Your task to perform on an android device: Show the shopping cart on newegg. Search for "asus rog" on newegg, select the first entry, add it to the cart, then select checkout. Image 0: 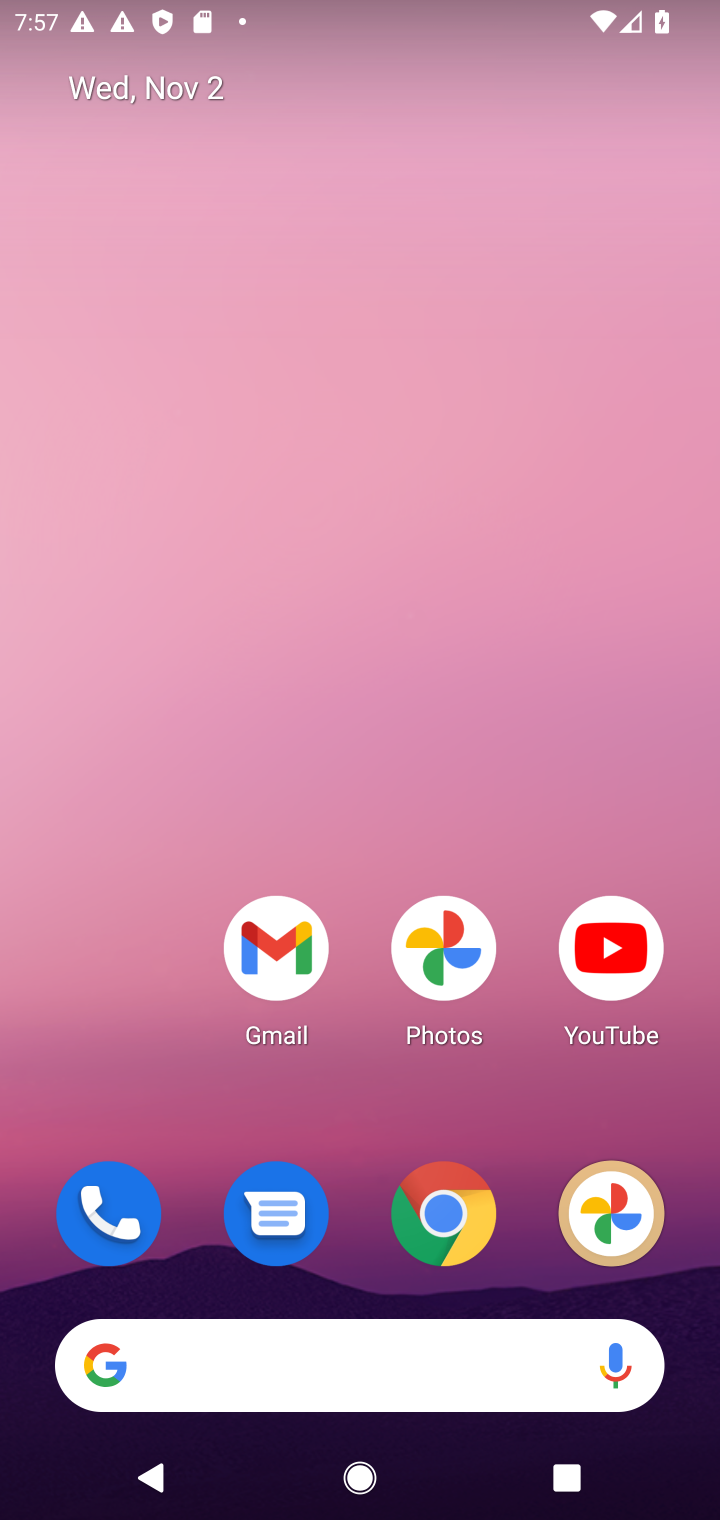
Step 0: click (454, 1232)
Your task to perform on an android device: Show the shopping cart on newegg. Search for "asus rog" on newegg, select the first entry, add it to the cart, then select checkout. Image 1: 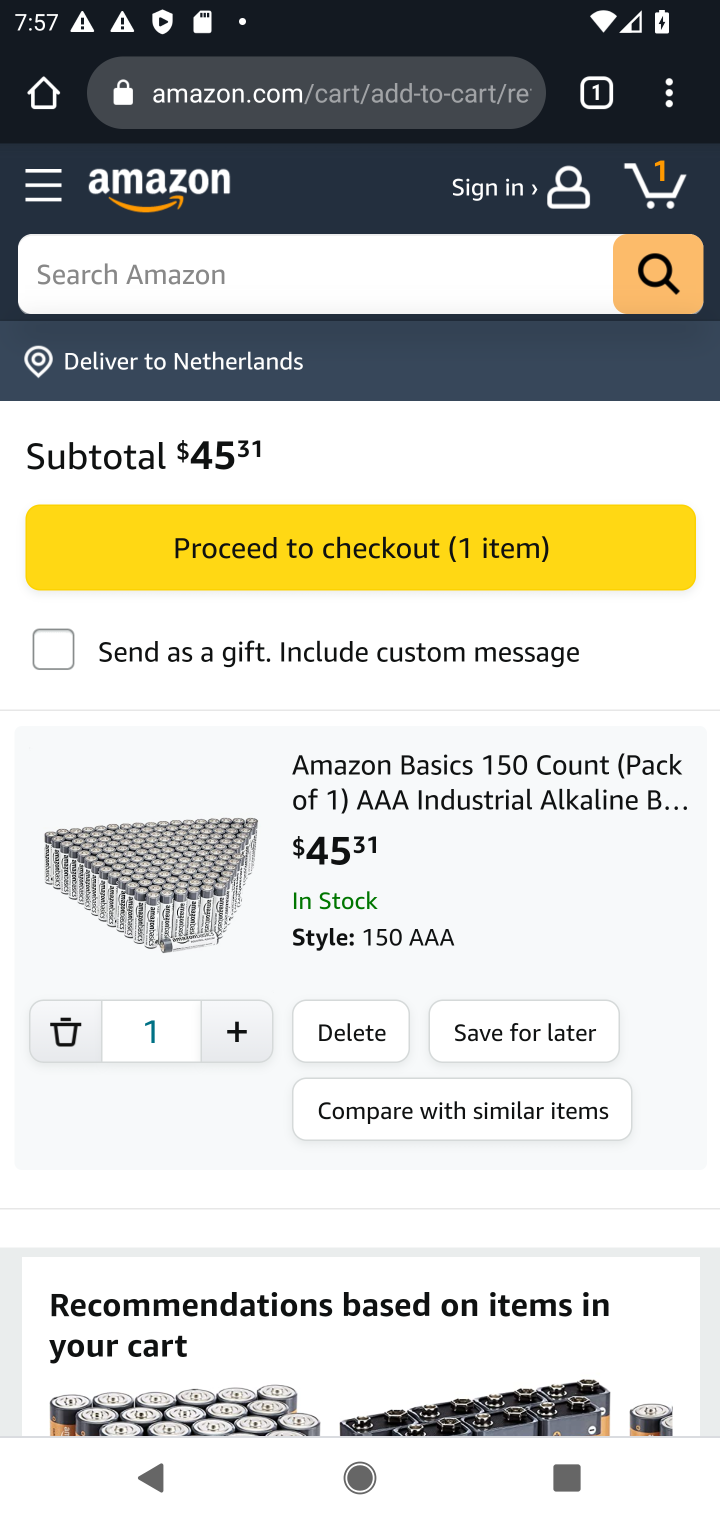
Step 1: click (281, 79)
Your task to perform on an android device: Show the shopping cart on newegg. Search for "asus rog" on newegg, select the first entry, add it to the cart, then select checkout. Image 2: 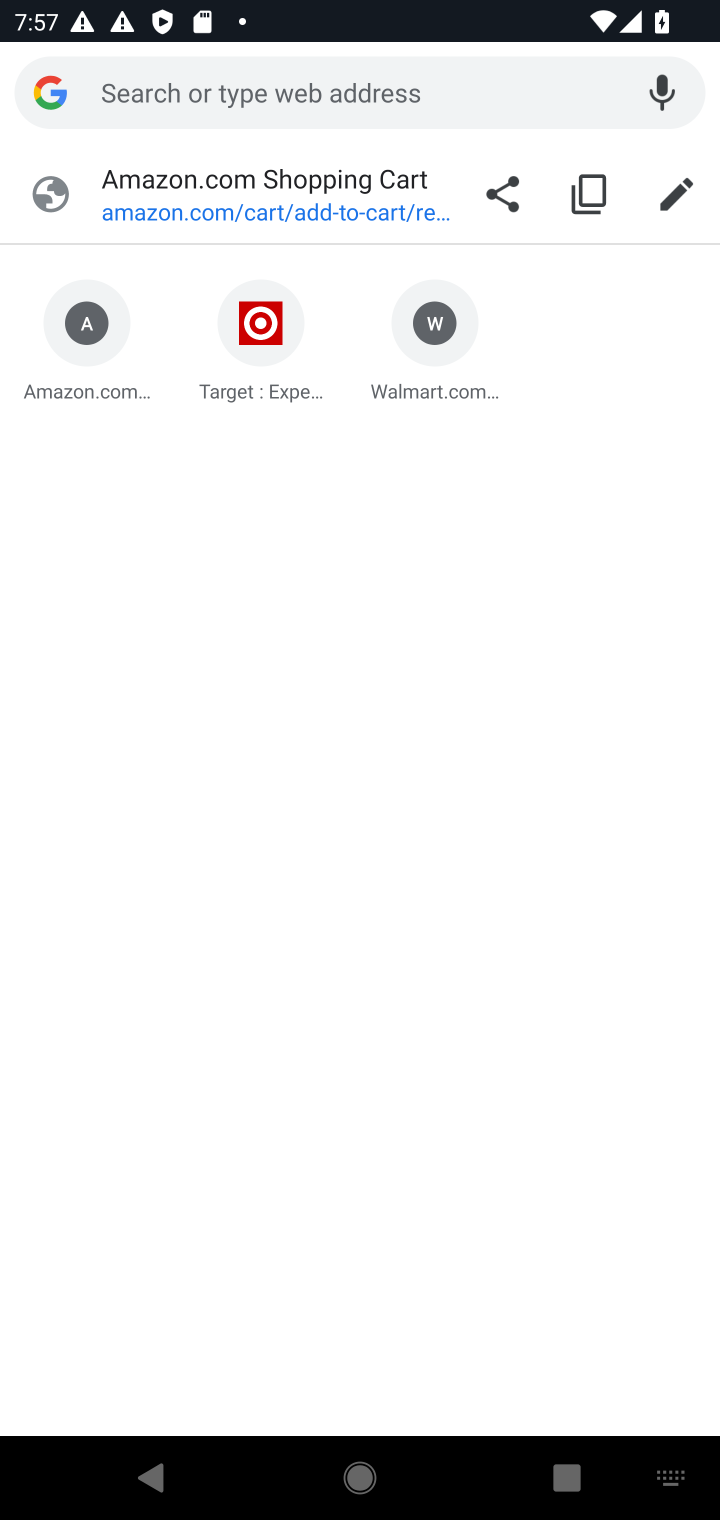
Step 2: type "newegg.com"
Your task to perform on an android device: Show the shopping cart on newegg. Search for "asus rog" on newegg, select the first entry, add it to the cart, then select checkout. Image 3: 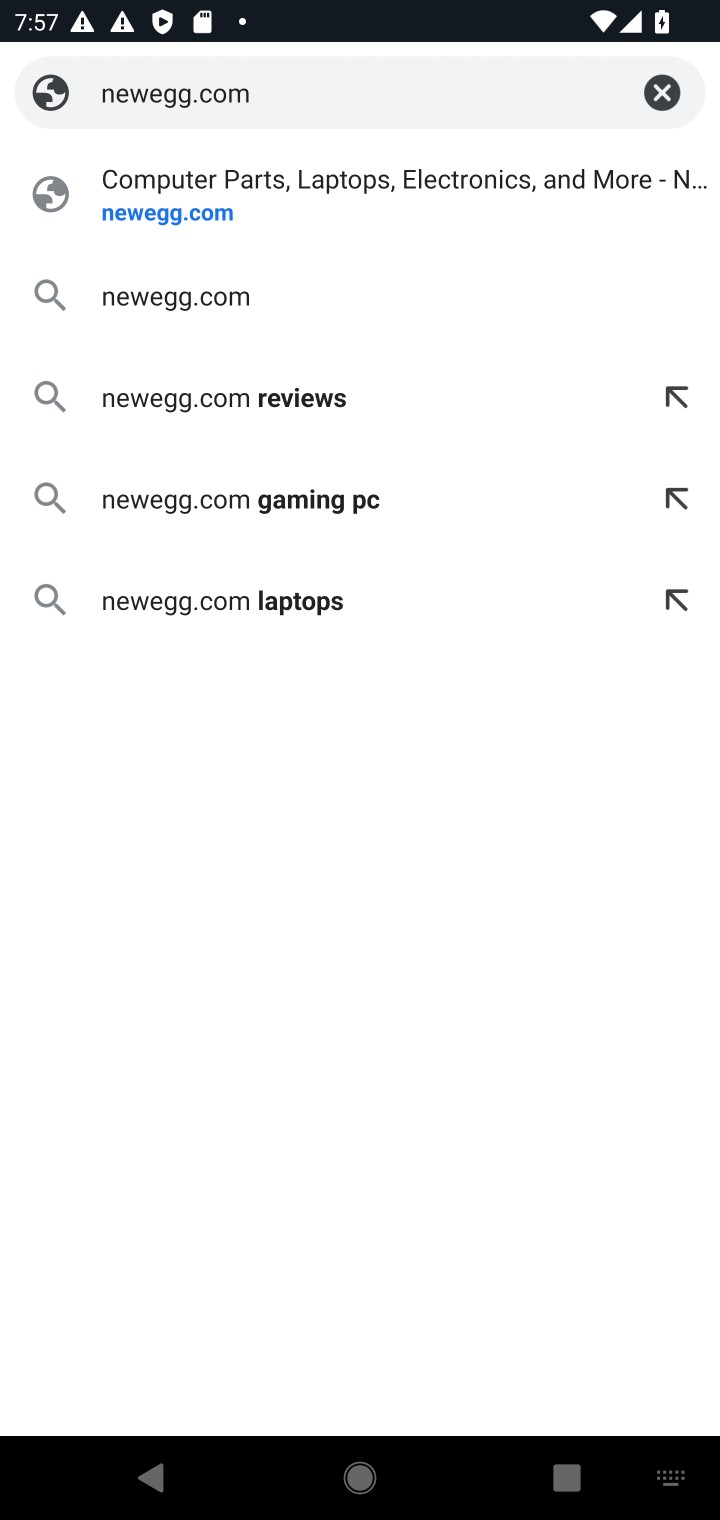
Step 3: click (149, 203)
Your task to perform on an android device: Show the shopping cart on newegg. Search for "asus rog" on newegg, select the first entry, add it to the cart, then select checkout. Image 4: 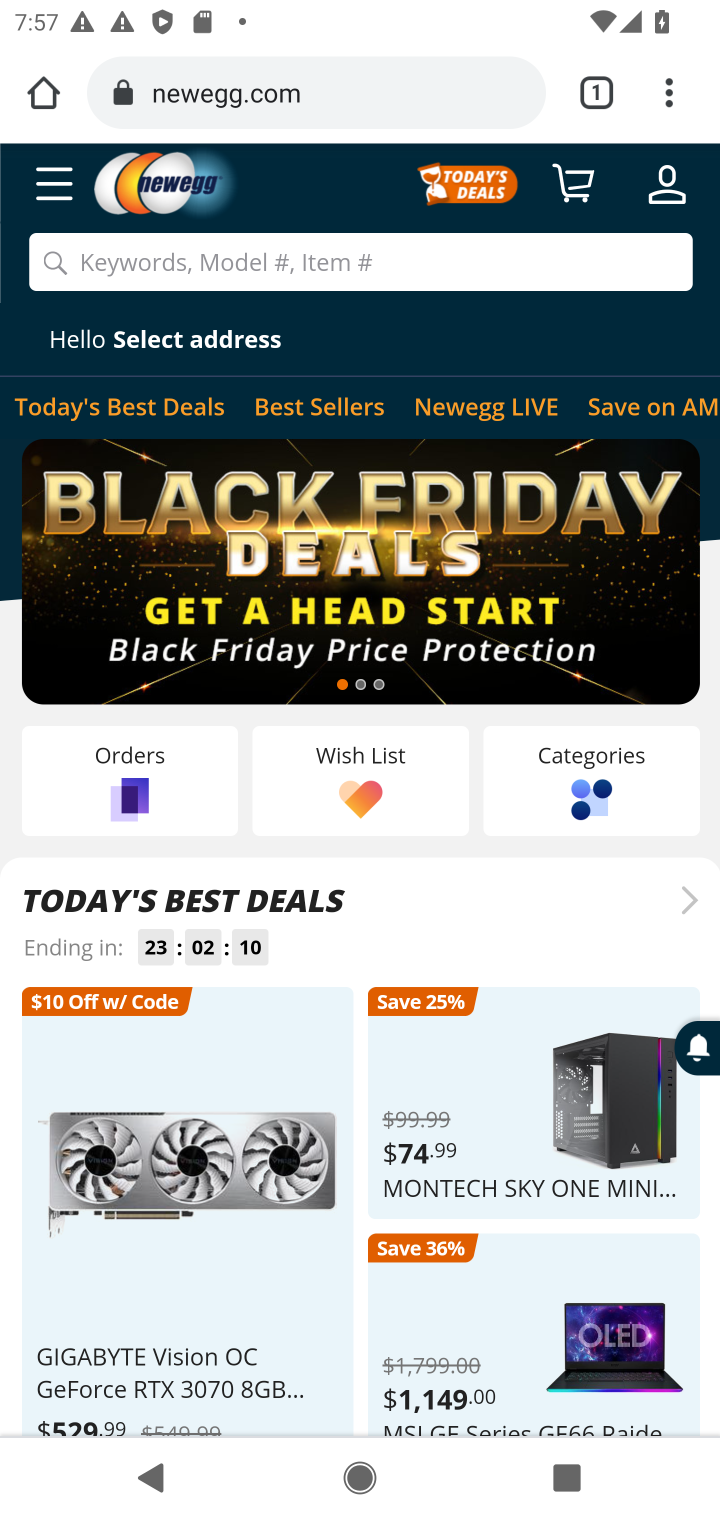
Step 4: click (586, 186)
Your task to perform on an android device: Show the shopping cart on newegg. Search for "asus rog" on newegg, select the first entry, add it to the cart, then select checkout. Image 5: 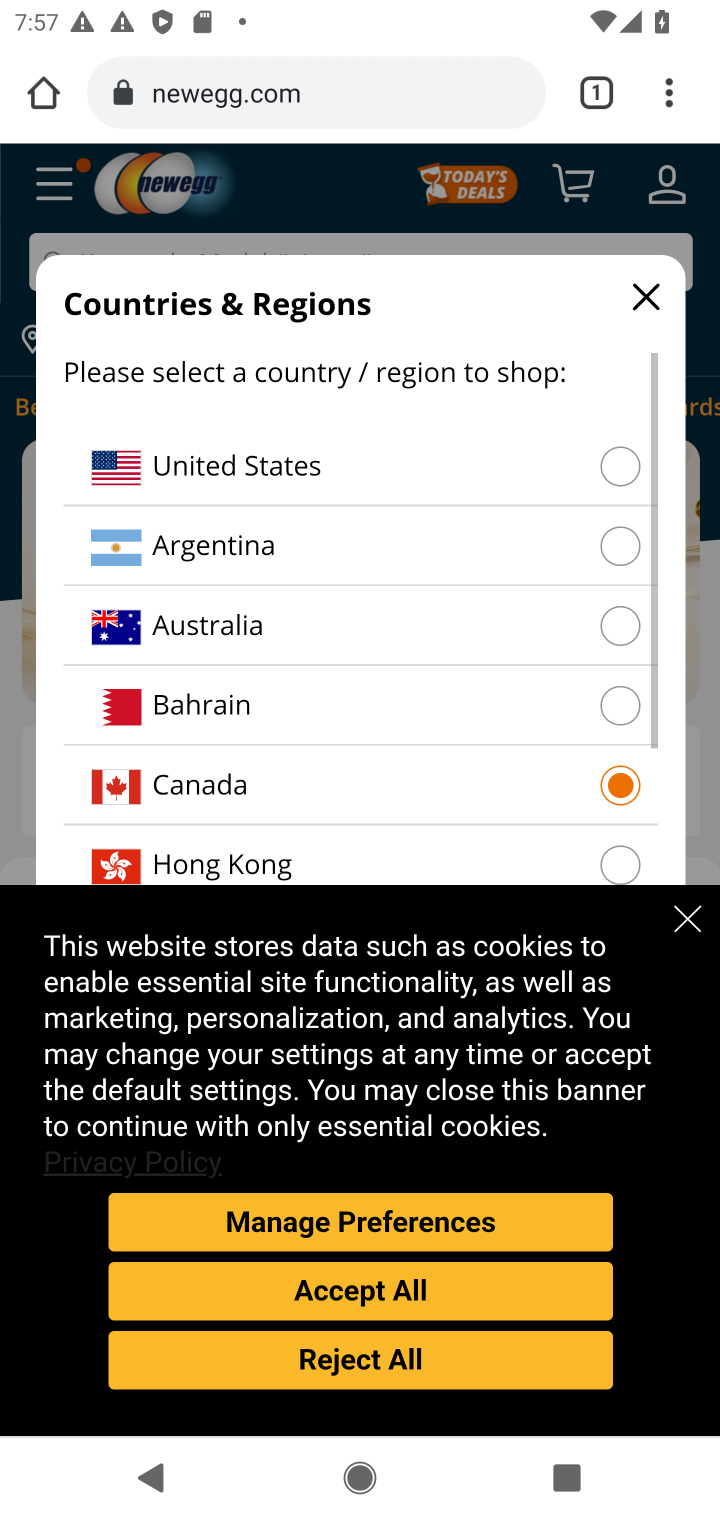
Step 5: click (649, 290)
Your task to perform on an android device: Show the shopping cart on newegg. Search for "asus rog" on newegg, select the first entry, add it to the cart, then select checkout. Image 6: 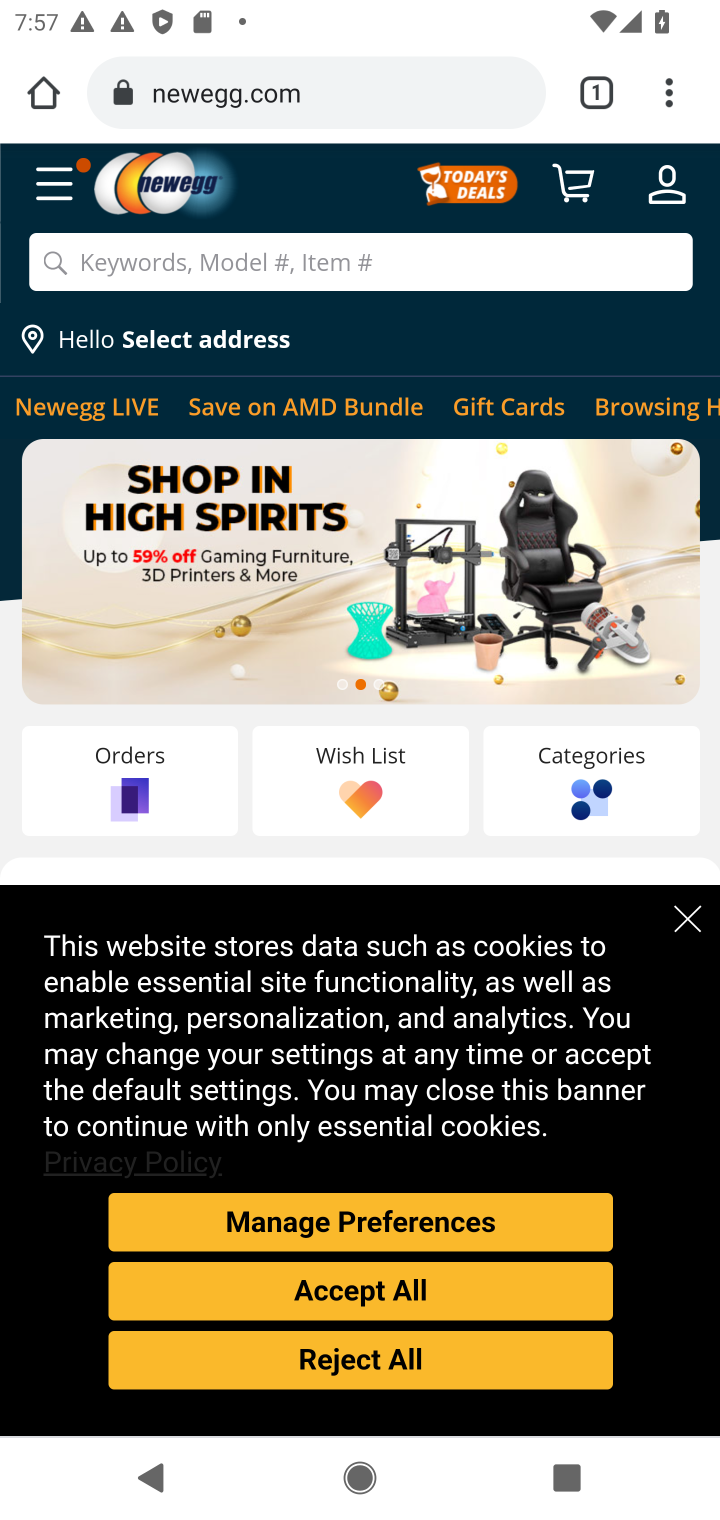
Step 6: click (699, 927)
Your task to perform on an android device: Show the shopping cart on newegg. Search for "asus rog" on newegg, select the first entry, add it to the cart, then select checkout. Image 7: 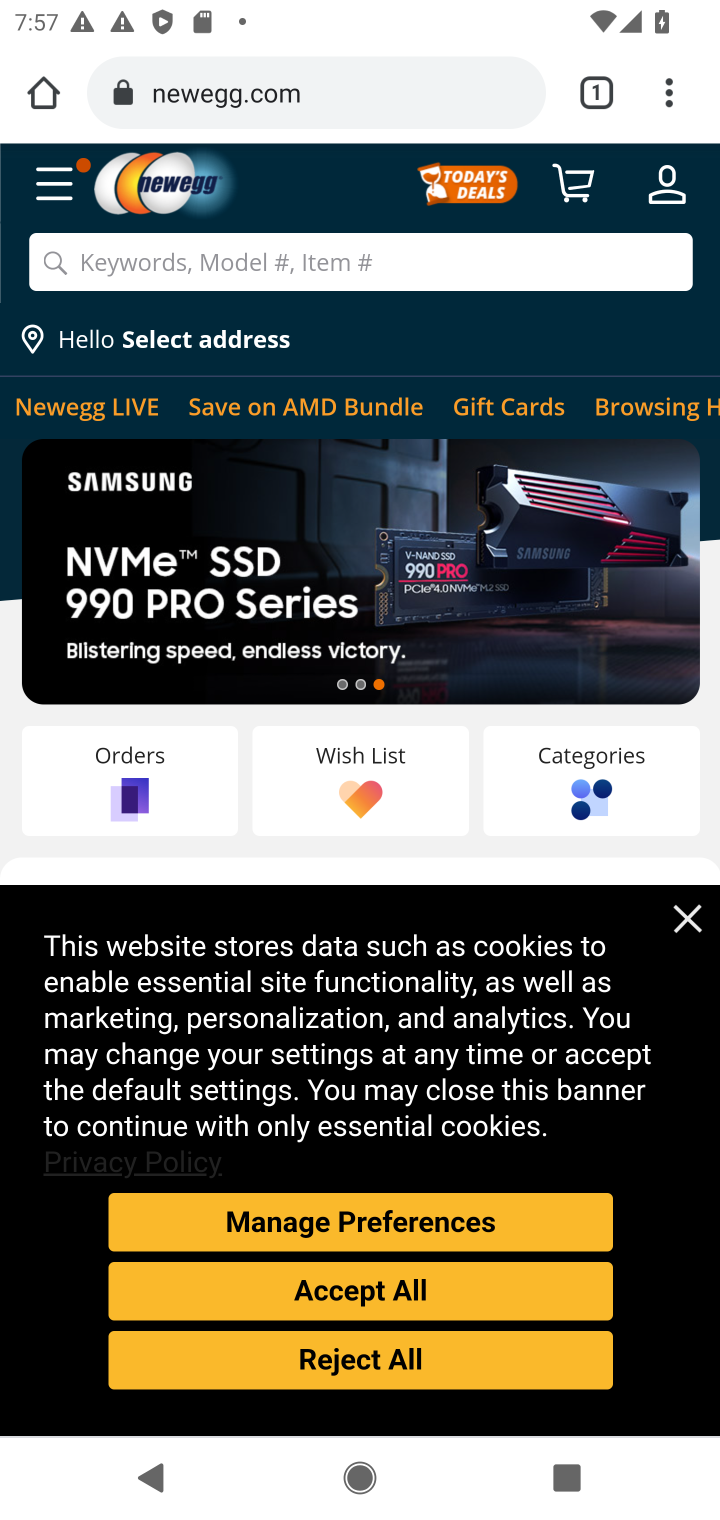
Step 7: click (582, 195)
Your task to perform on an android device: Show the shopping cart on newegg. Search for "asus rog" on newegg, select the first entry, add it to the cart, then select checkout. Image 8: 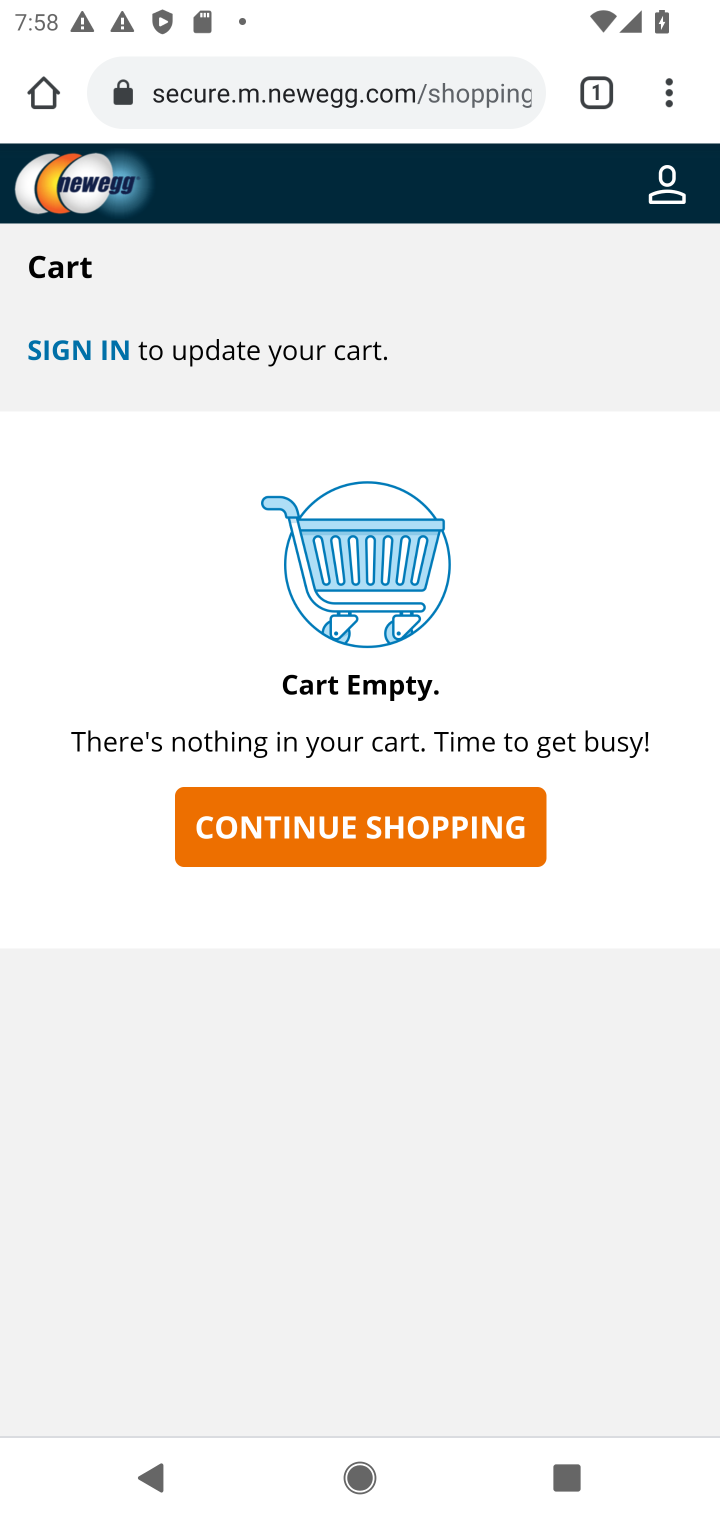
Step 8: press back button
Your task to perform on an android device: Show the shopping cart on newegg. Search for "asus rog" on newegg, select the first entry, add it to the cart, then select checkout. Image 9: 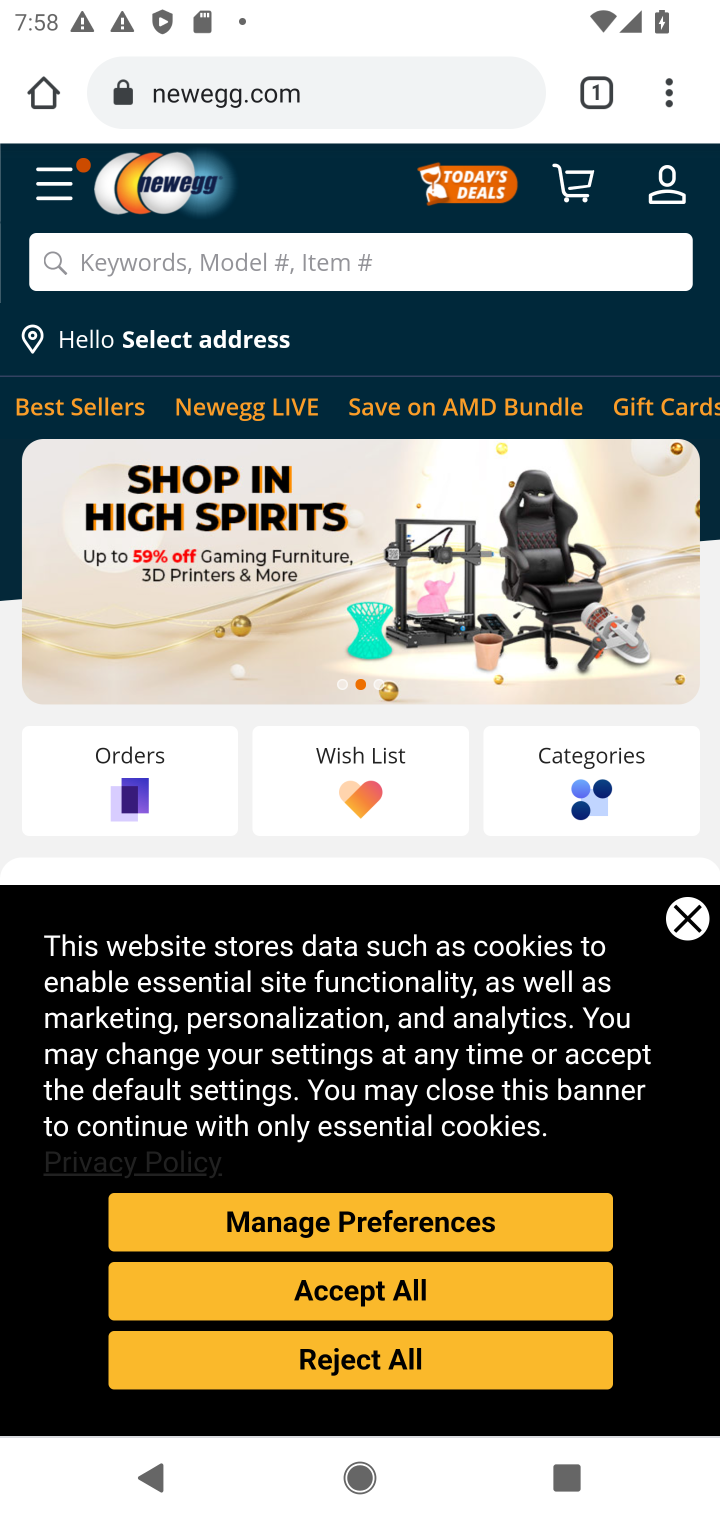
Step 9: click (227, 259)
Your task to perform on an android device: Show the shopping cart on newegg. Search for "asus rog" on newegg, select the first entry, add it to the cart, then select checkout. Image 10: 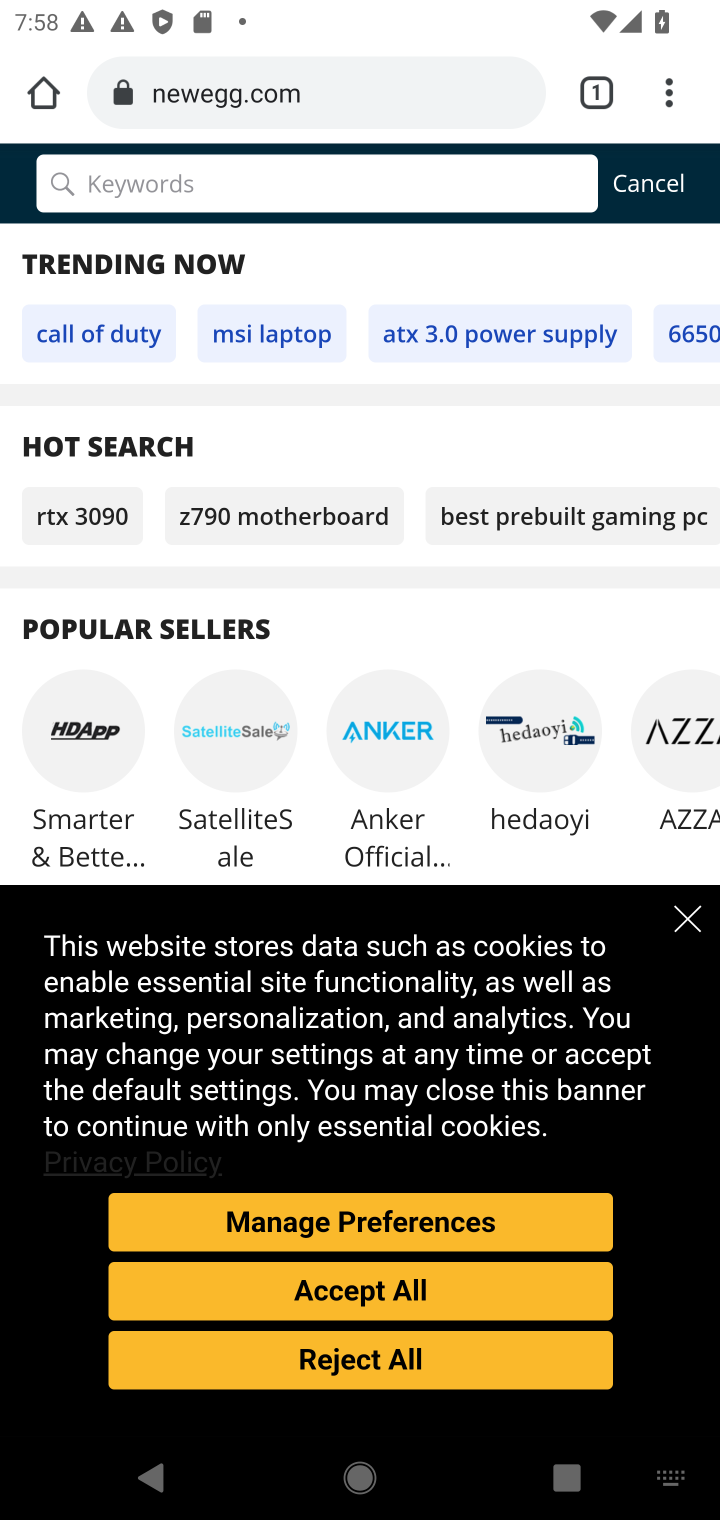
Step 10: type "asus rog"
Your task to perform on an android device: Show the shopping cart on newegg. Search for "asus rog" on newegg, select the first entry, add it to the cart, then select checkout. Image 11: 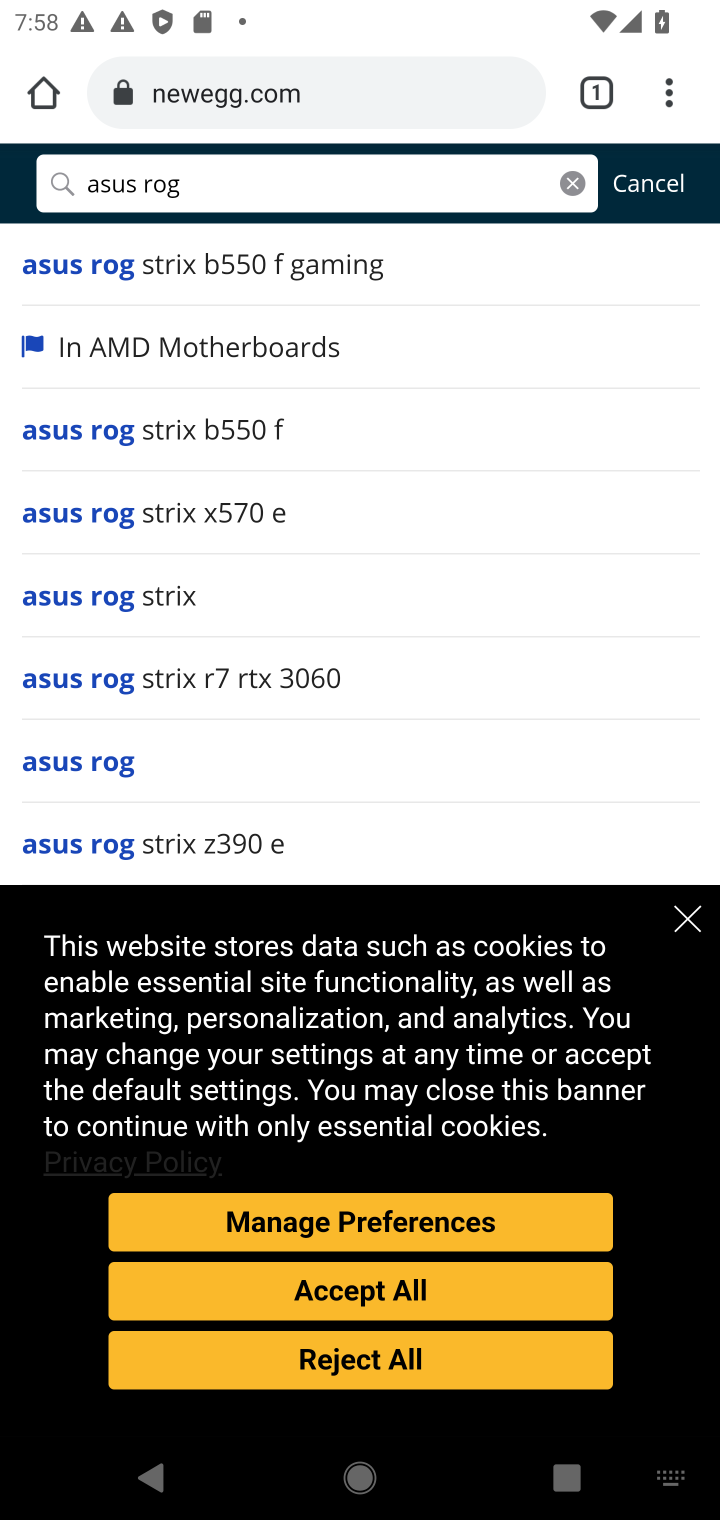
Step 11: click (74, 263)
Your task to perform on an android device: Show the shopping cart on newegg. Search for "asus rog" on newegg, select the first entry, add it to the cart, then select checkout. Image 12: 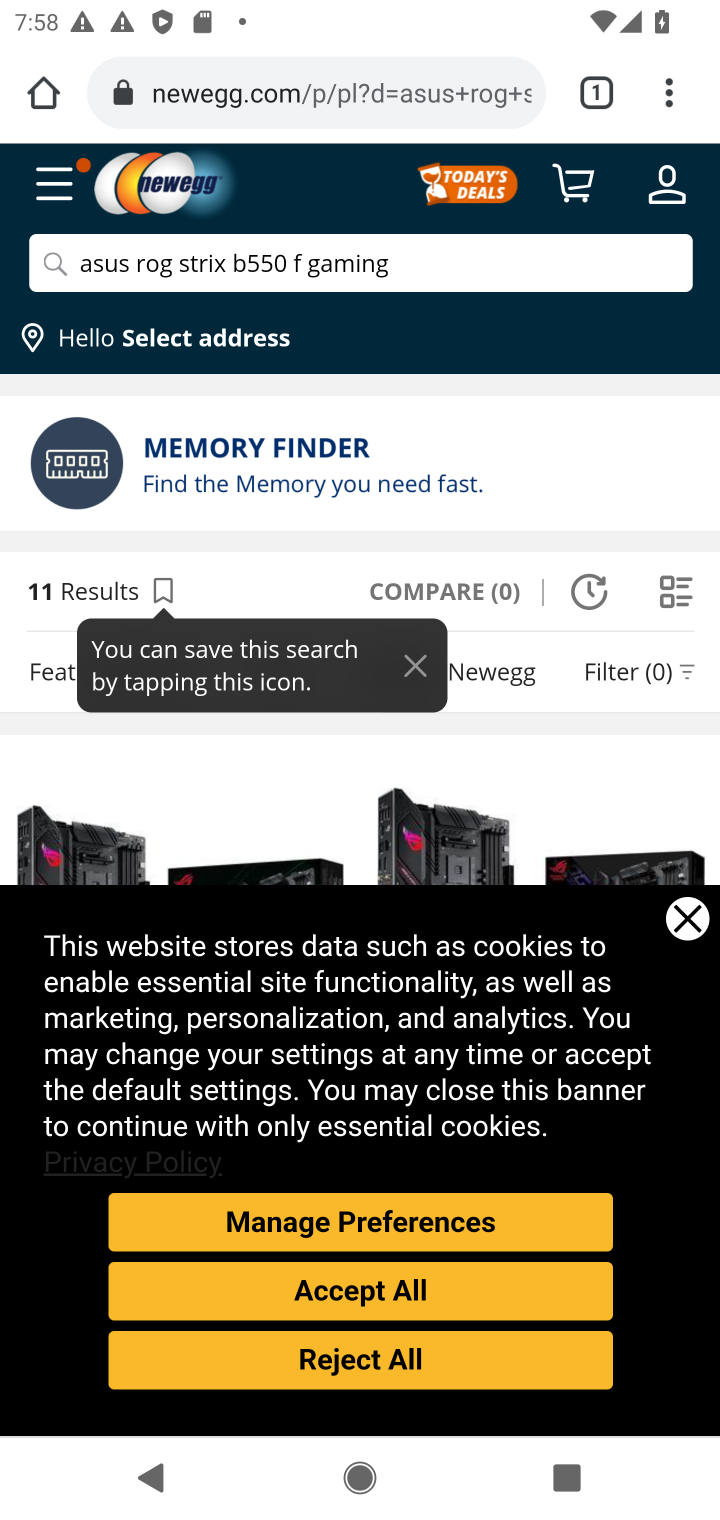
Step 12: click (693, 918)
Your task to perform on an android device: Show the shopping cart on newegg. Search for "asus rog" on newegg, select the first entry, add it to the cart, then select checkout. Image 13: 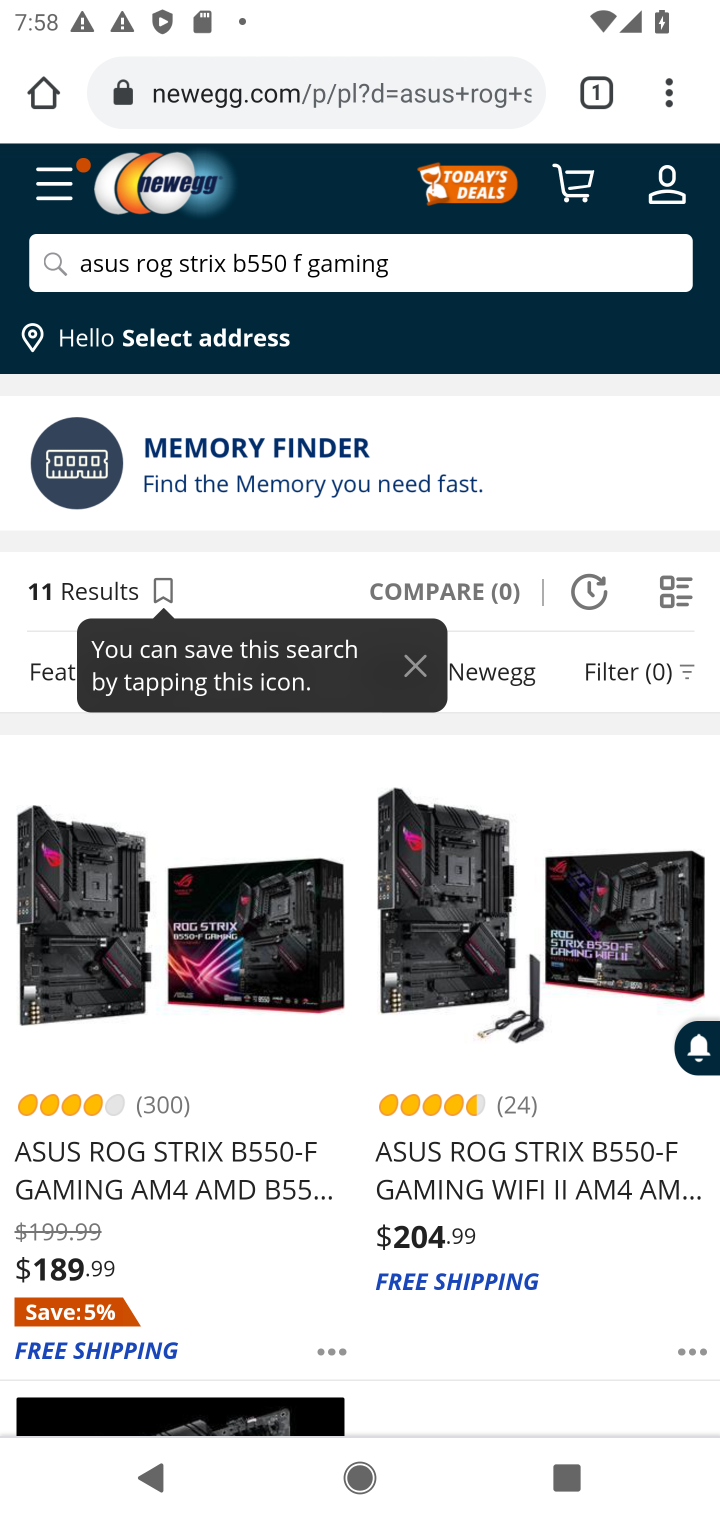
Step 13: click (166, 990)
Your task to perform on an android device: Show the shopping cart on newegg. Search for "asus rog" on newegg, select the first entry, add it to the cart, then select checkout. Image 14: 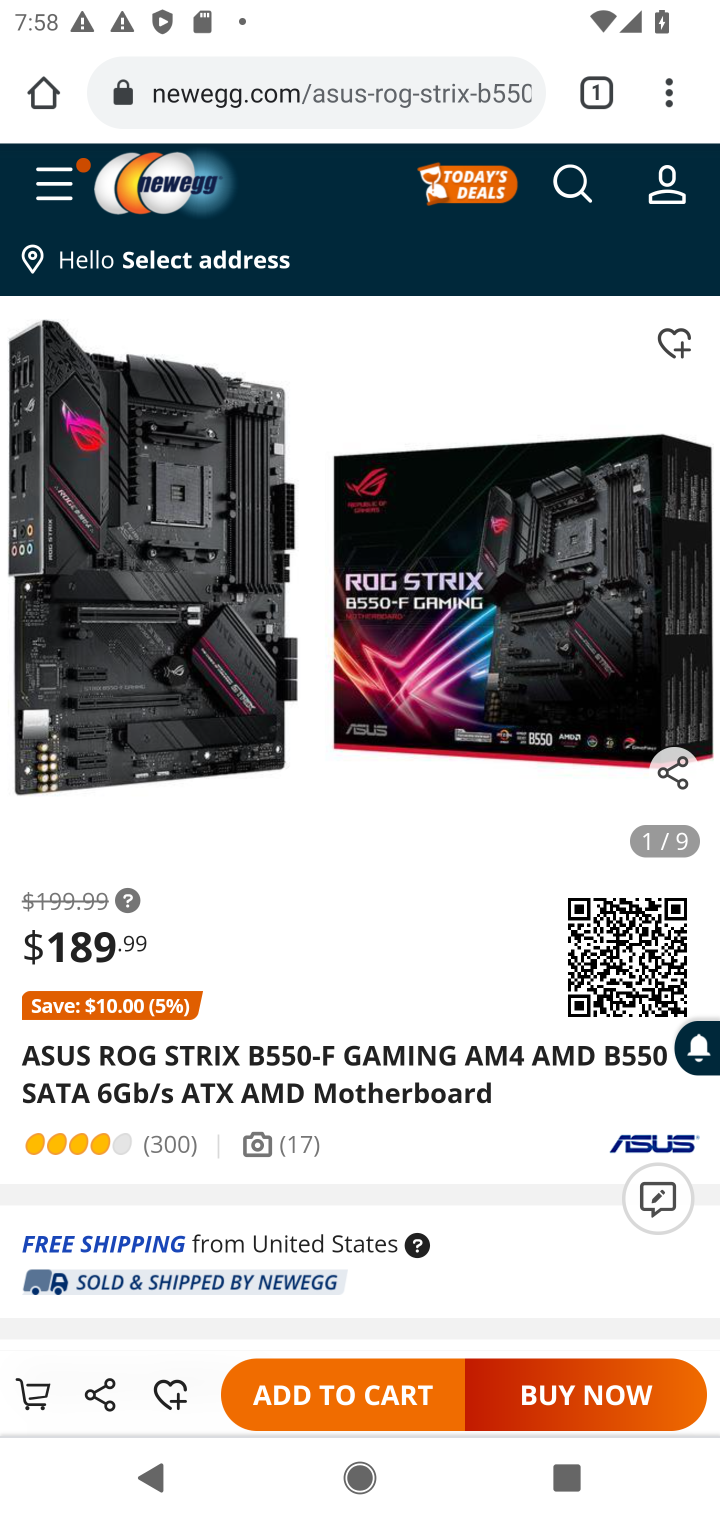
Step 14: click (300, 1391)
Your task to perform on an android device: Show the shopping cart on newegg. Search for "asus rog" on newegg, select the first entry, add it to the cart, then select checkout. Image 15: 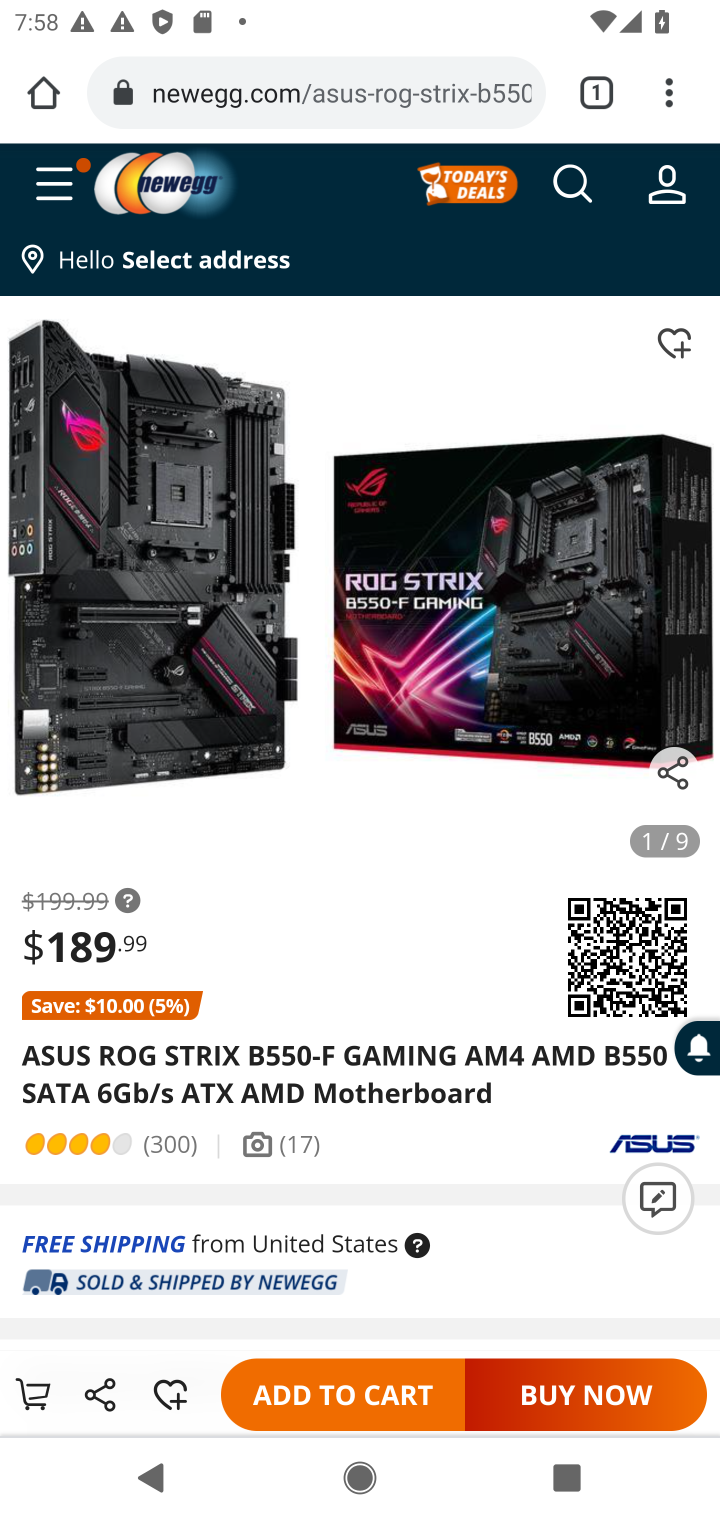
Step 15: click (300, 1391)
Your task to perform on an android device: Show the shopping cart on newegg. Search for "asus rog" on newegg, select the first entry, add it to the cart, then select checkout. Image 16: 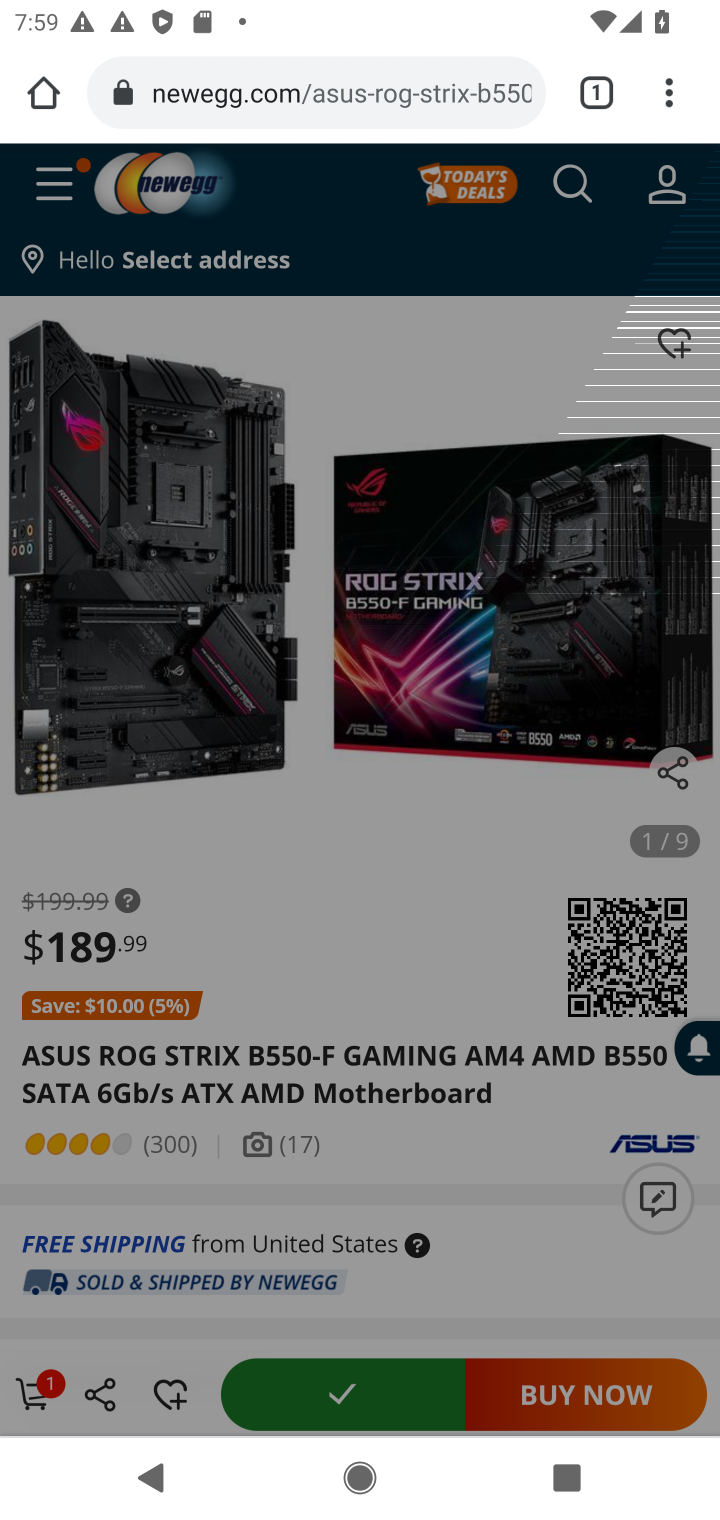
Step 16: click (50, 1387)
Your task to perform on an android device: Show the shopping cart on newegg. Search for "asus rog" on newegg, select the first entry, add it to the cart, then select checkout. Image 17: 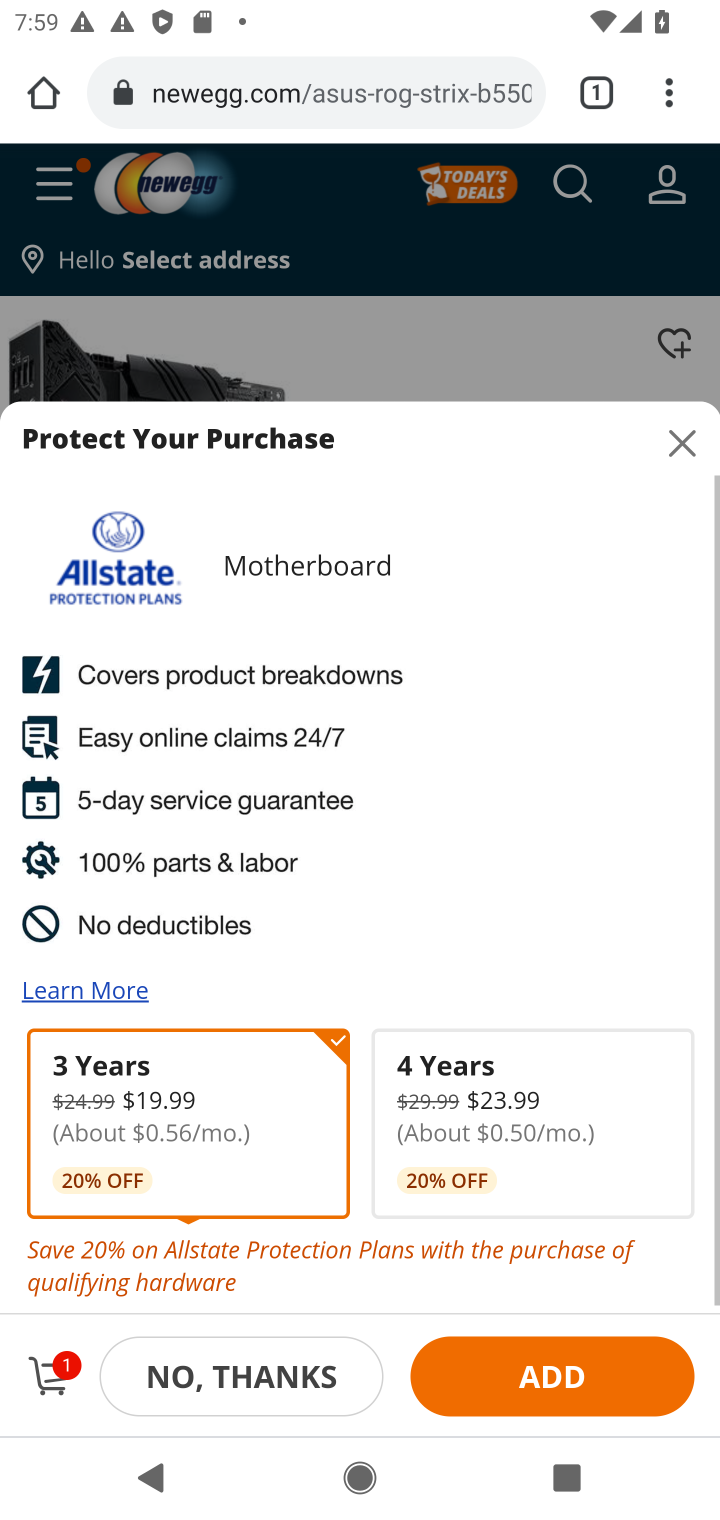
Step 17: click (64, 1375)
Your task to perform on an android device: Show the shopping cart on newegg. Search for "asus rog" on newegg, select the first entry, add it to the cart, then select checkout. Image 18: 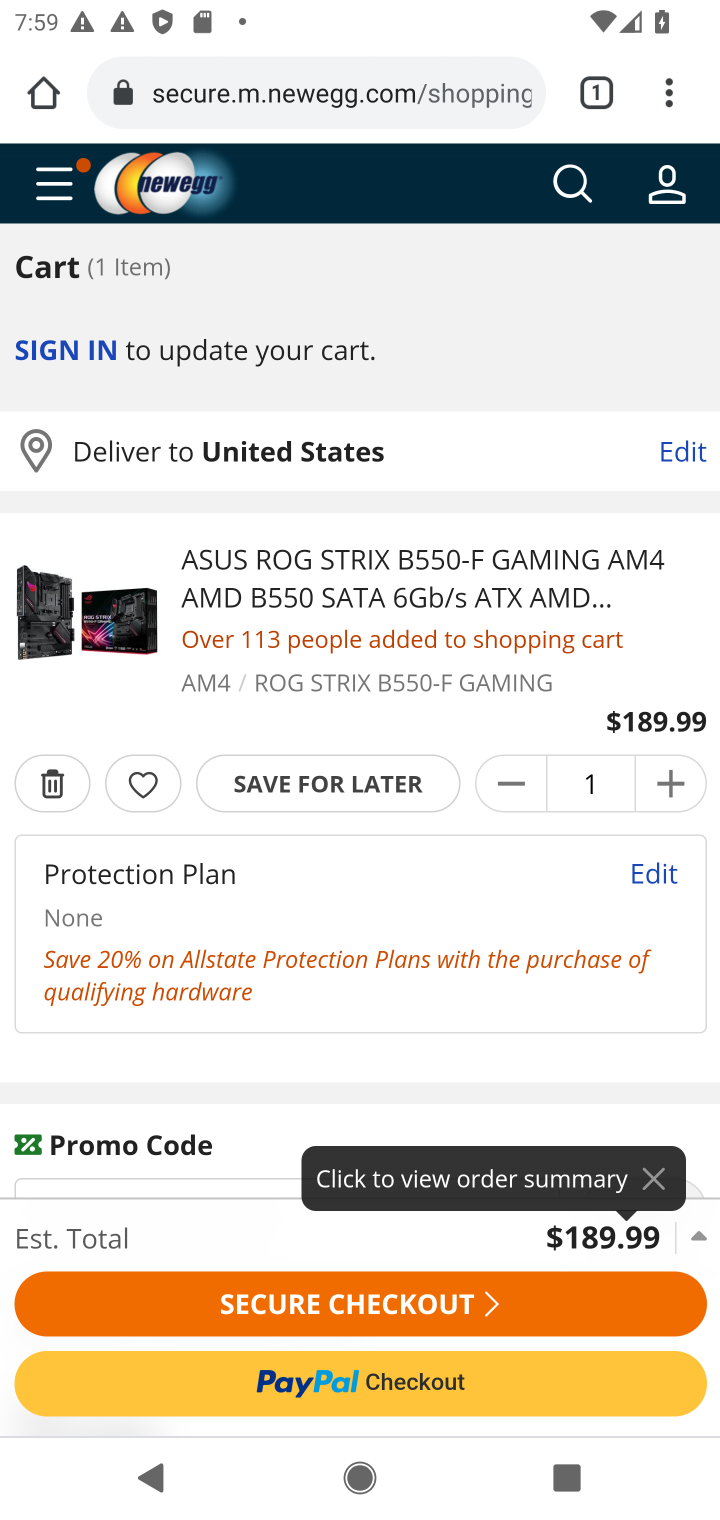
Step 18: click (307, 1302)
Your task to perform on an android device: Show the shopping cart on newegg. Search for "asus rog" on newegg, select the first entry, add it to the cart, then select checkout. Image 19: 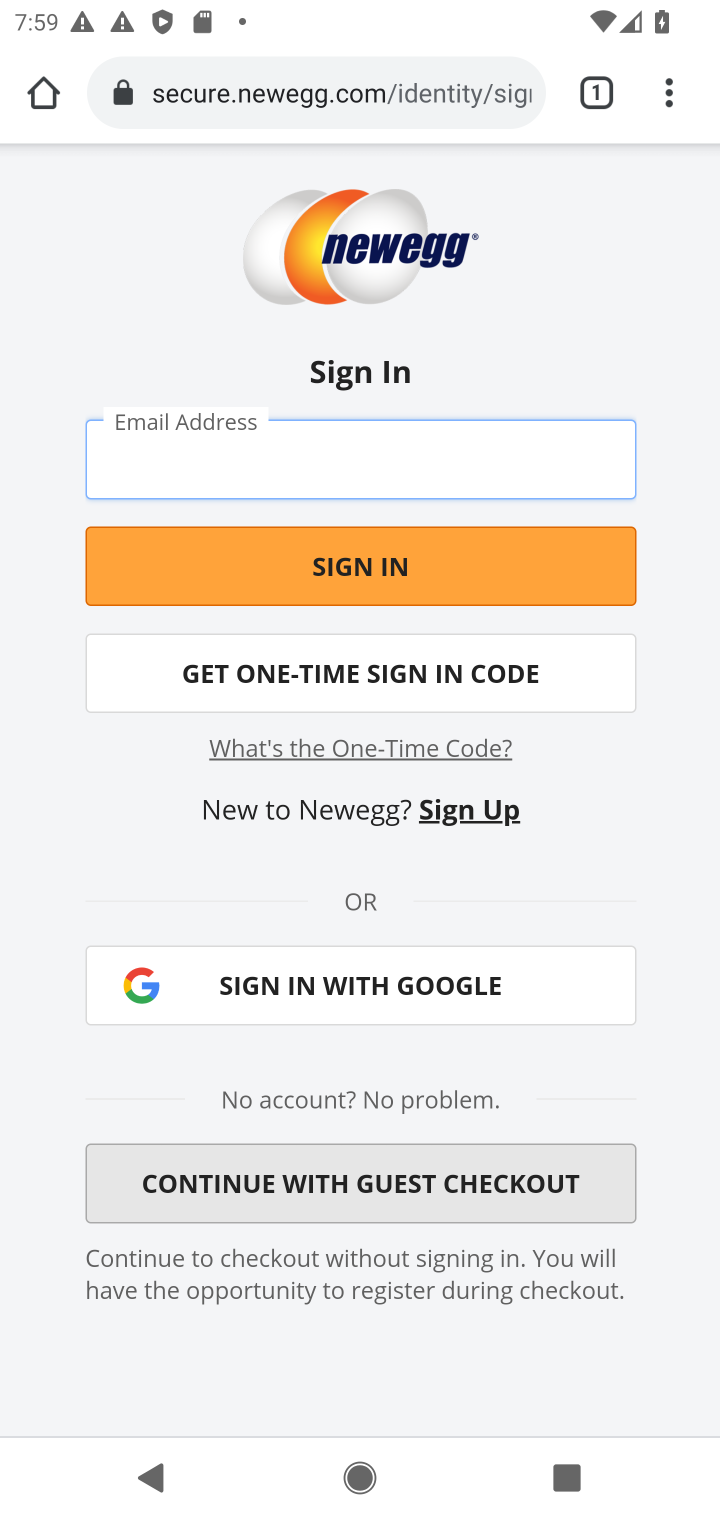
Step 19: task complete